Your task to perform on an android device: What is the news today? Image 0: 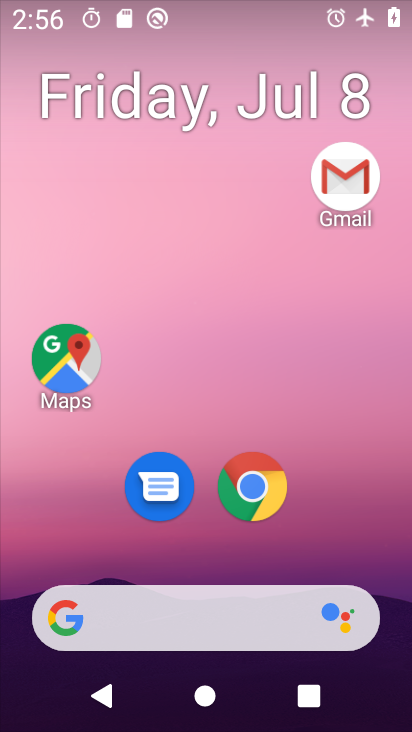
Step 0: drag from (3, 233) to (401, 431)
Your task to perform on an android device: What is the news today? Image 1: 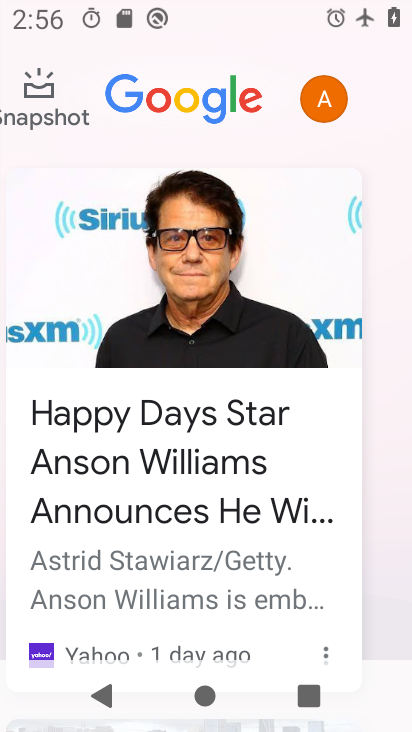
Step 1: task complete